Your task to perform on an android device: Show me productivity apps on the Play Store Image 0: 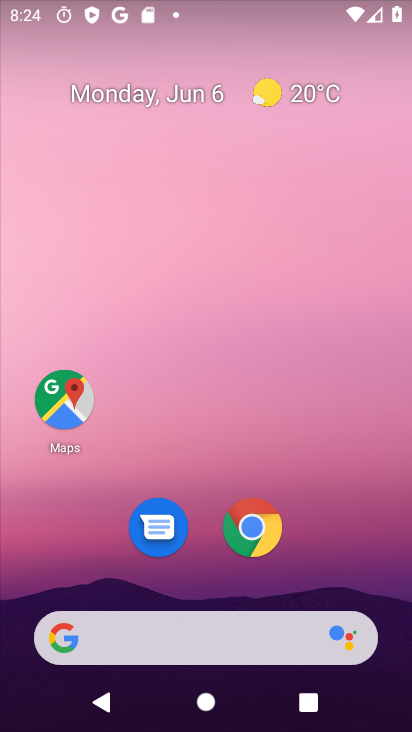
Step 0: drag from (231, 699) to (233, 148)
Your task to perform on an android device: Show me productivity apps on the Play Store Image 1: 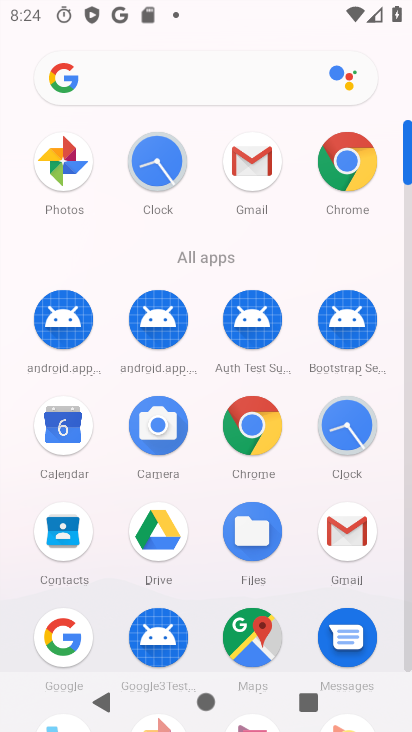
Step 1: drag from (220, 645) to (186, 315)
Your task to perform on an android device: Show me productivity apps on the Play Store Image 2: 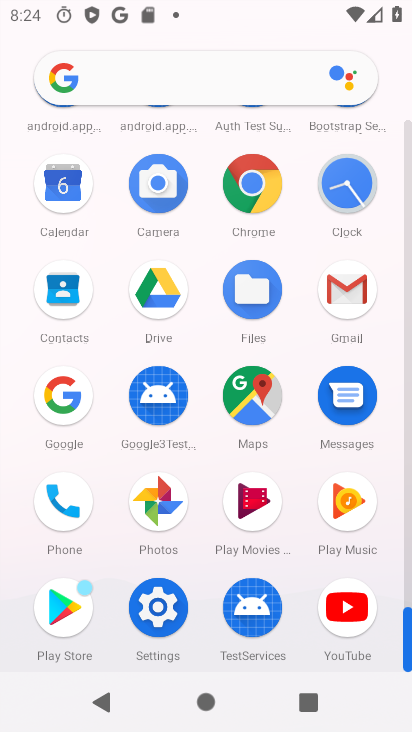
Step 2: click (60, 616)
Your task to perform on an android device: Show me productivity apps on the Play Store Image 3: 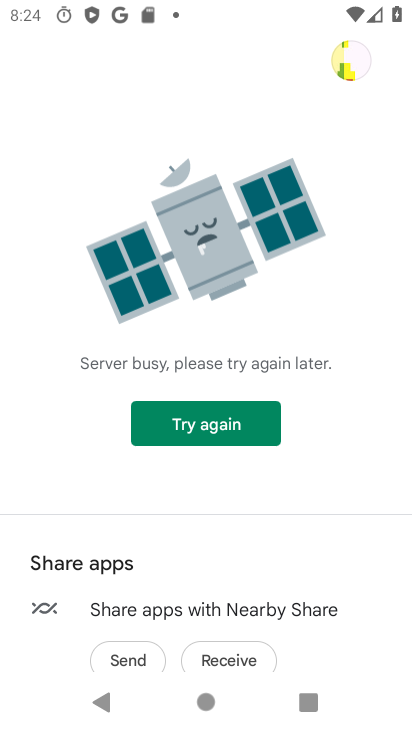
Step 3: click (187, 432)
Your task to perform on an android device: Show me productivity apps on the Play Store Image 4: 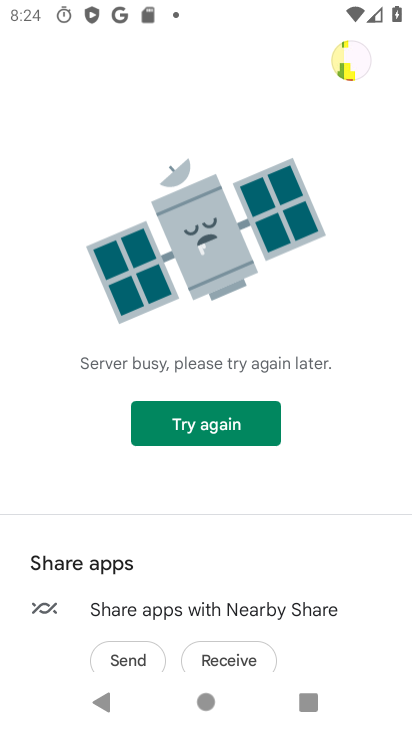
Step 4: task complete